Your task to perform on an android device: Empty the shopping cart on costco.com. Add "apple airpods" to the cart on costco.com Image 0: 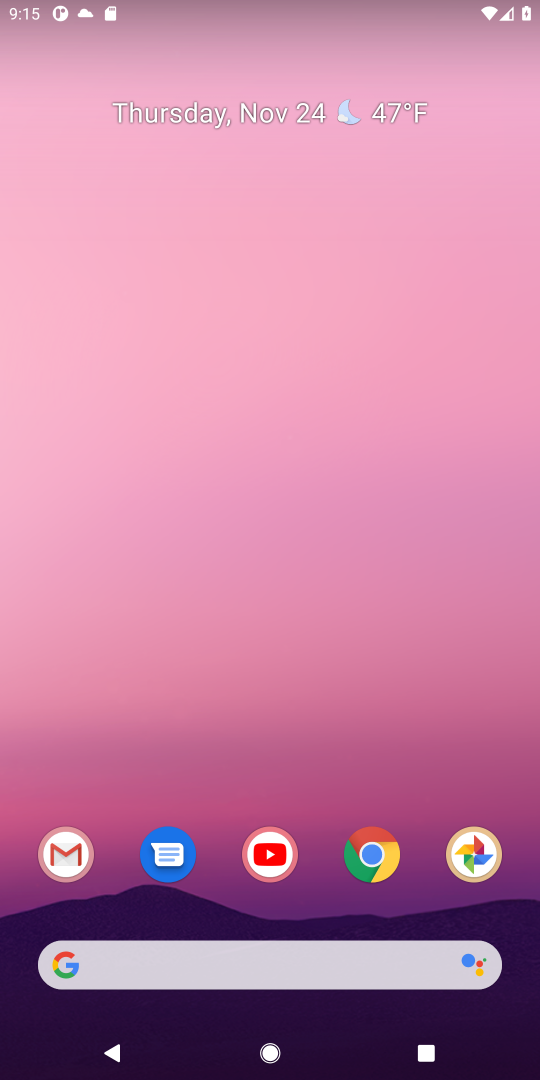
Step 0: click (375, 868)
Your task to perform on an android device: Empty the shopping cart on costco.com. Add "apple airpods" to the cart on costco.com Image 1: 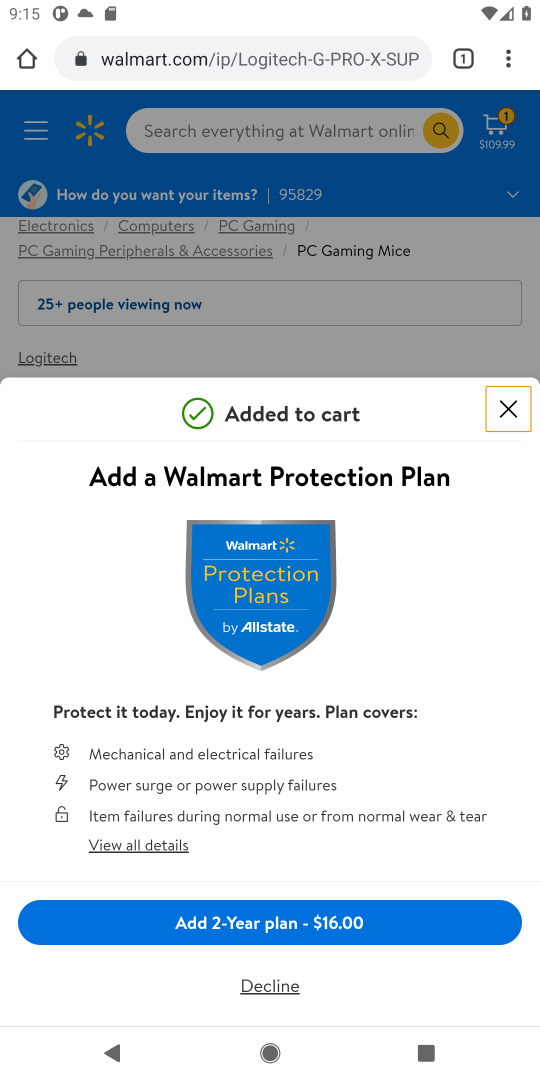
Step 1: click (260, 60)
Your task to perform on an android device: Empty the shopping cart on costco.com. Add "apple airpods" to the cart on costco.com Image 2: 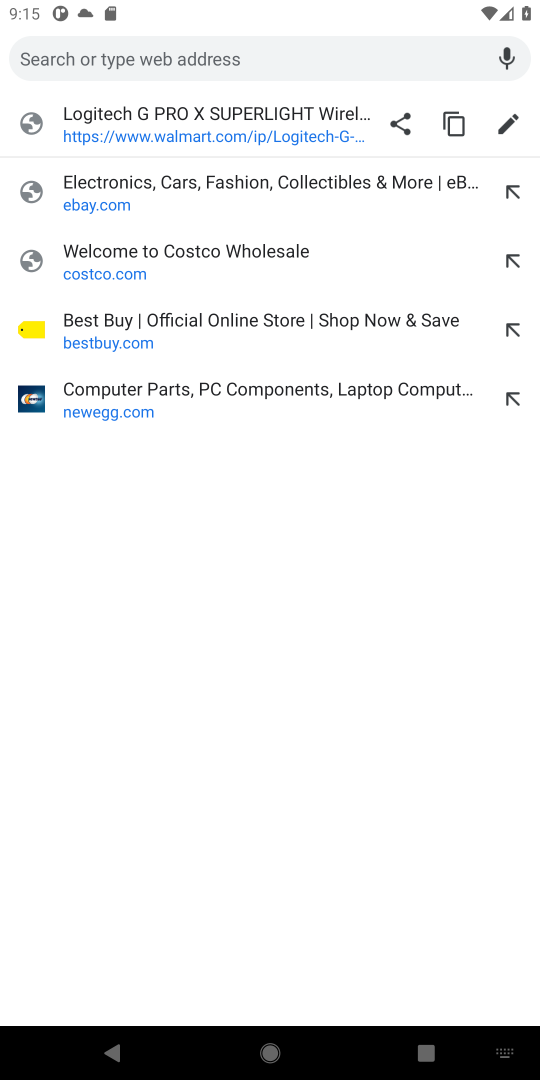
Step 2: click (92, 263)
Your task to perform on an android device: Empty the shopping cart on costco.com. Add "apple airpods" to the cart on costco.com Image 3: 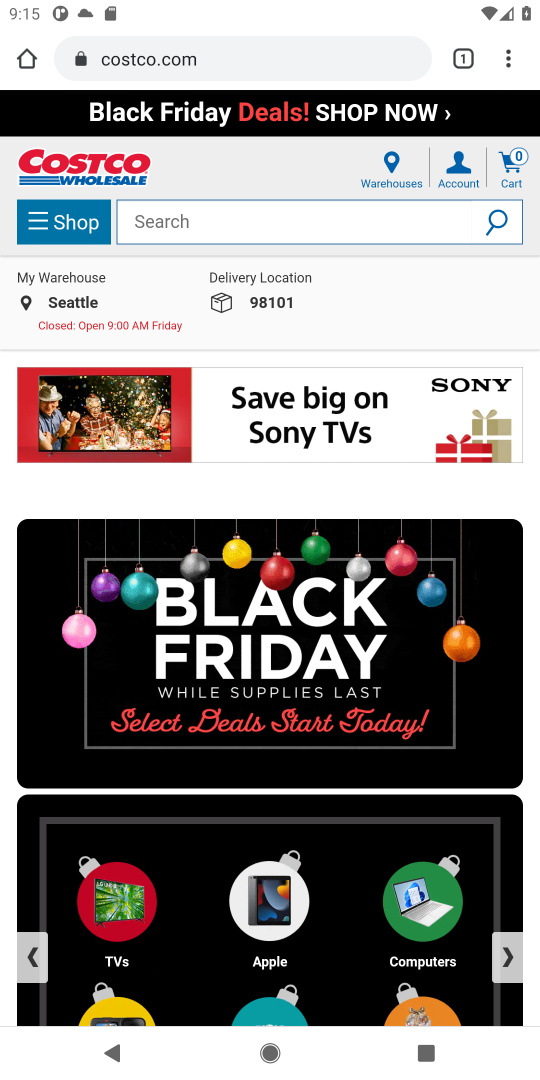
Step 3: click (514, 174)
Your task to perform on an android device: Empty the shopping cart on costco.com. Add "apple airpods" to the cart on costco.com Image 4: 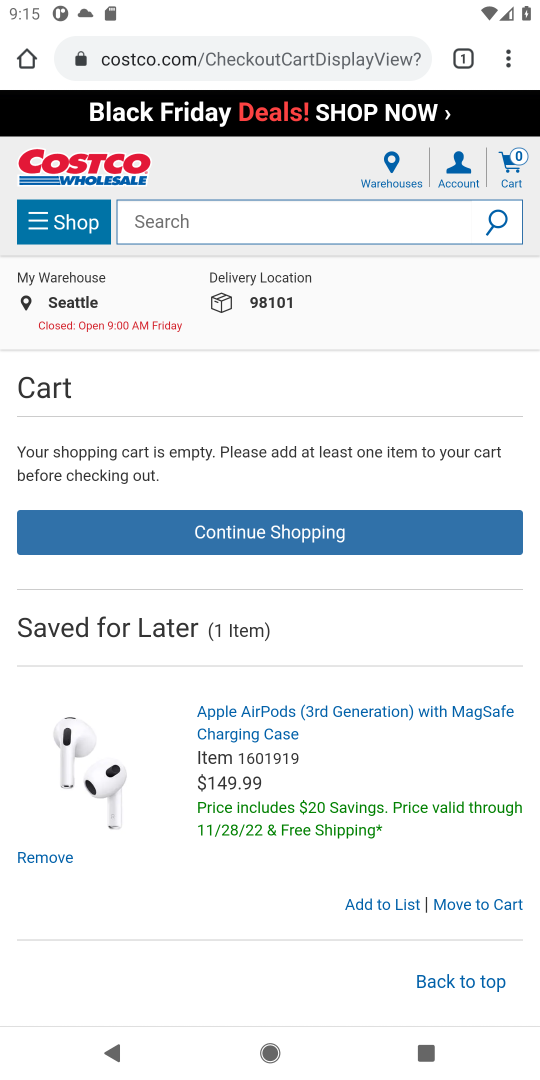
Step 4: click (209, 219)
Your task to perform on an android device: Empty the shopping cart on costco.com. Add "apple airpods" to the cart on costco.com Image 5: 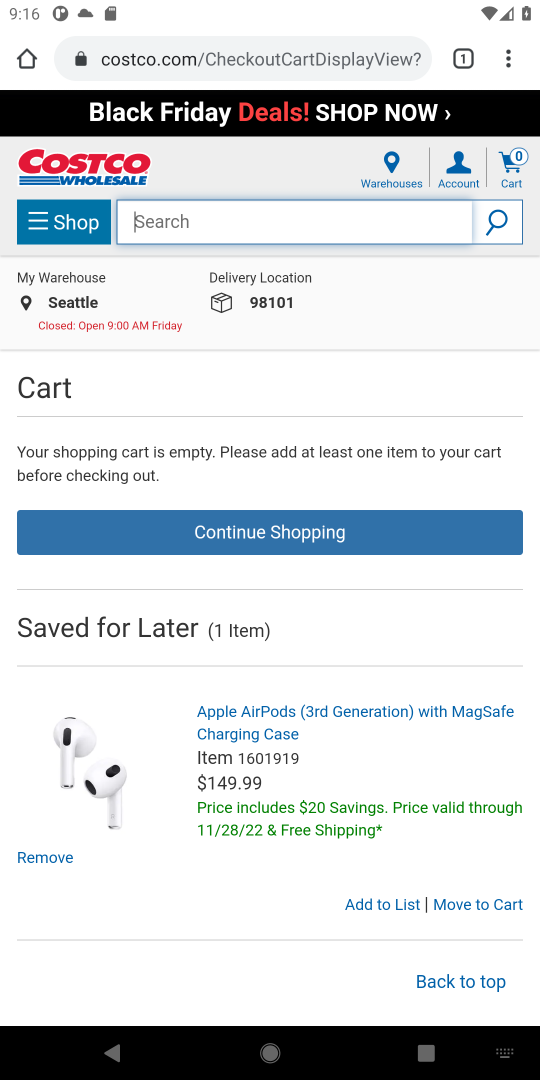
Step 5: type "apple airpods"
Your task to perform on an android device: Empty the shopping cart on costco.com. Add "apple airpods" to the cart on costco.com Image 6: 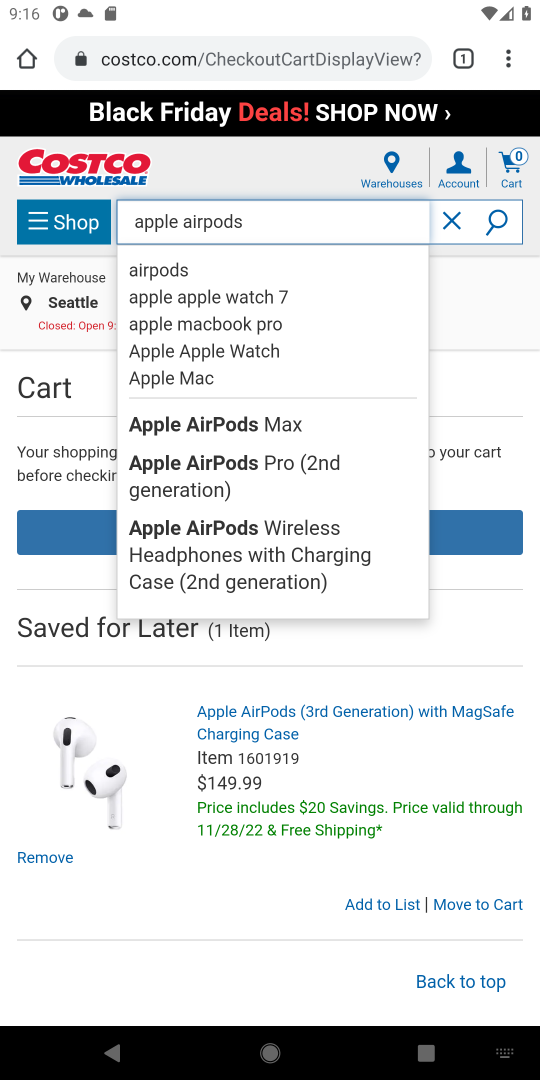
Step 6: click (505, 215)
Your task to perform on an android device: Empty the shopping cart on costco.com. Add "apple airpods" to the cart on costco.com Image 7: 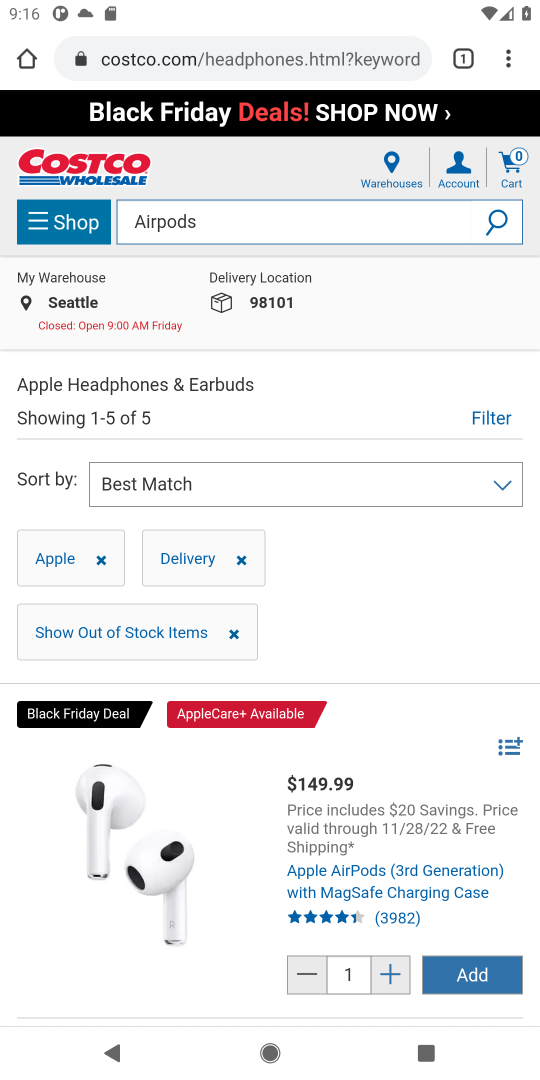
Step 7: drag from (310, 633) to (317, 439)
Your task to perform on an android device: Empty the shopping cart on costco.com. Add "apple airpods" to the cart on costco.com Image 8: 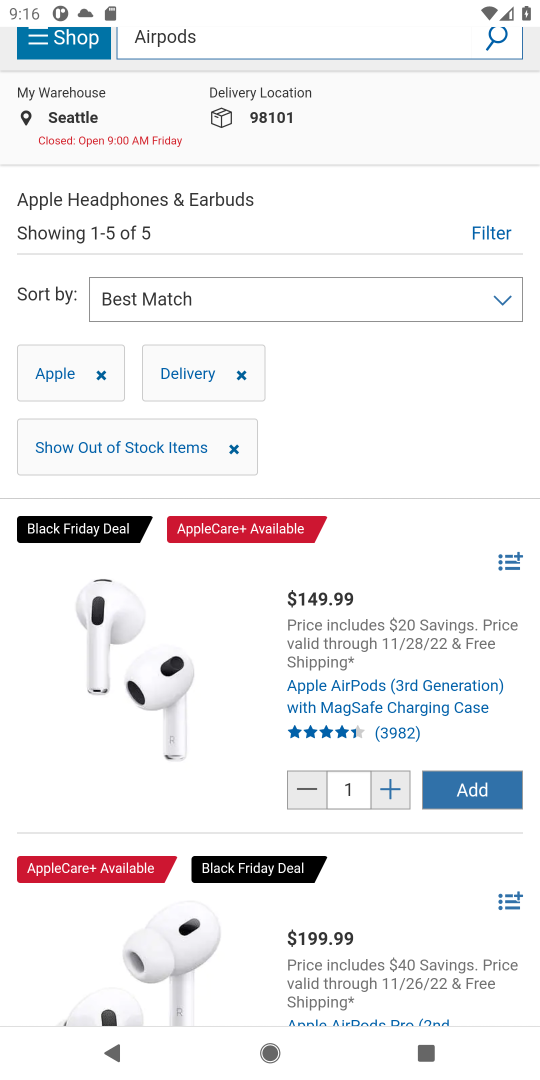
Step 8: click (489, 792)
Your task to perform on an android device: Empty the shopping cart on costco.com. Add "apple airpods" to the cart on costco.com Image 9: 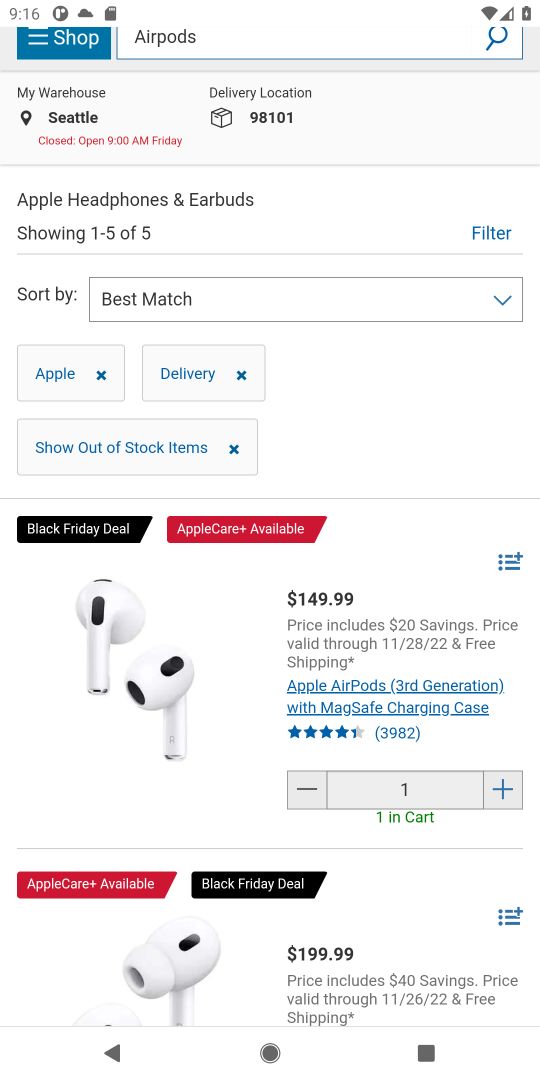
Step 9: task complete